Your task to perform on an android device: Open calendar and show me the second week of next month Image 0: 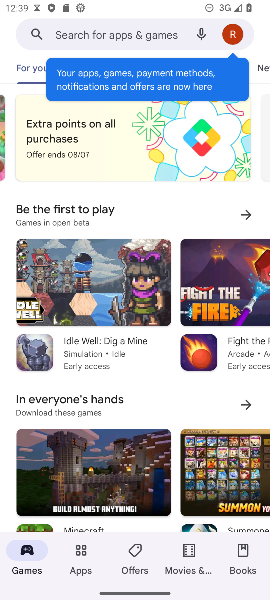
Step 0: press home button
Your task to perform on an android device: Open calendar and show me the second week of next month Image 1: 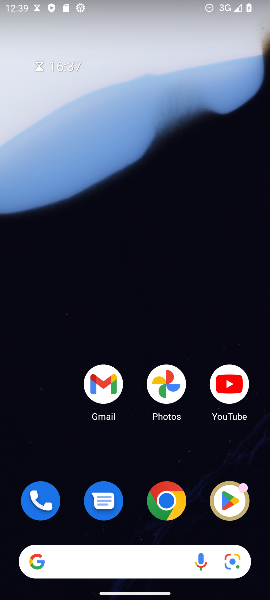
Step 1: drag from (117, 450) to (116, 142)
Your task to perform on an android device: Open calendar and show me the second week of next month Image 2: 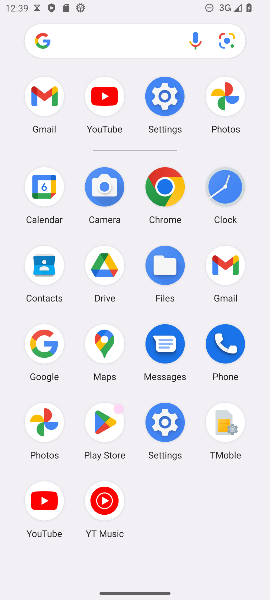
Step 2: click (48, 199)
Your task to perform on an android device: Open calendar and show me the second week of next month Image 3: 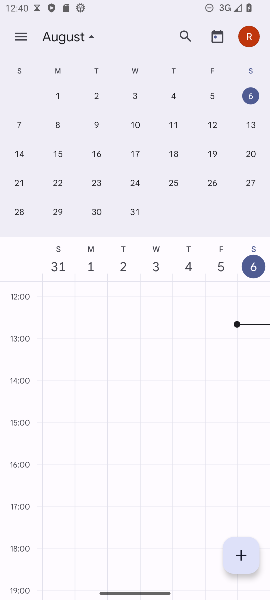
Step 3: drag from (207, 138) to (9, 138)
Your task to perform on an android device: Open calendar and show me the second week of next month Image 4: 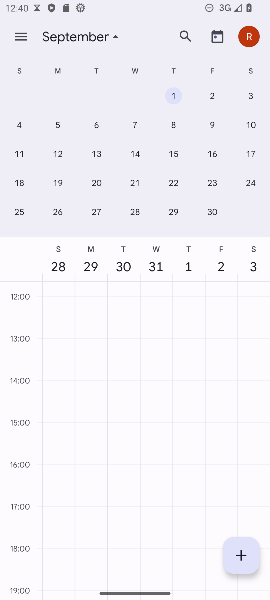
Step 4: click (15, 129)
Your task to perform on an android device: Open calendar and show me the second week of next month Image 5: 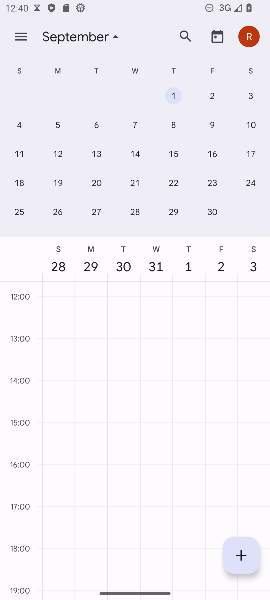
Step 5: click (15, 129)
Your task to perform on an android device: Open calendar and show me the second week of next month Image 6: 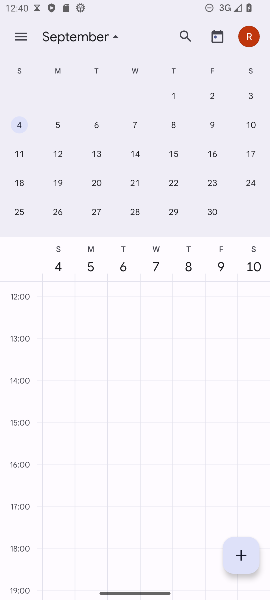
Step 6: task complete